Your task to perform on an android device: What's the weather like in Los Angeles? Image 0: 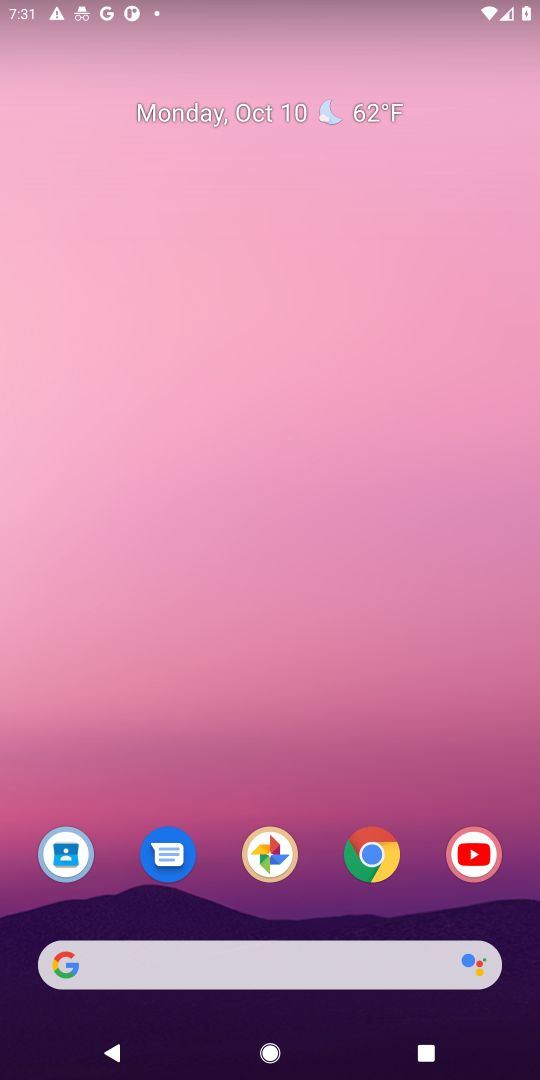
Step 0: click (381, 854)
Your task to perform on an android device: What's the weather like in Los Angeles? Image 1: 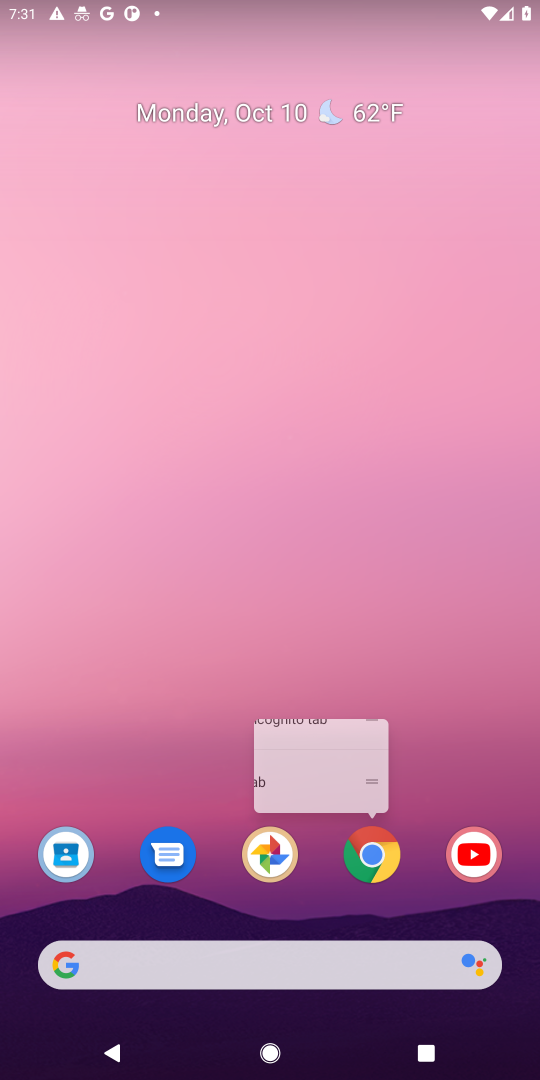
Step 1: click (381, 854)
Your task to perform on an android device: What's the weather like in Los Angeles? Image 2: 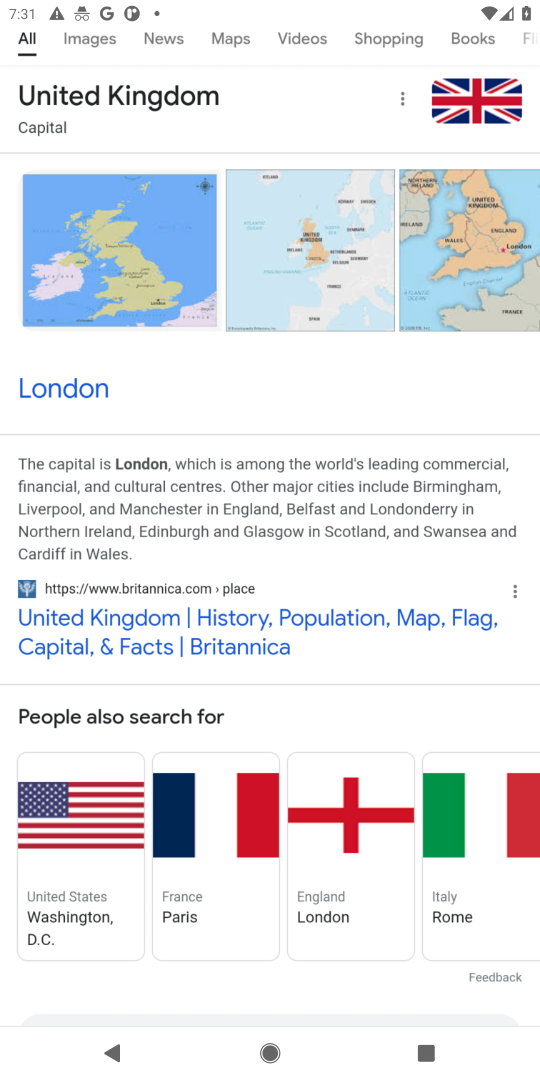
Step 2: click (381, 854)
Your task to perform on an android device: What's the weather like in Los Angeles? Image 3: 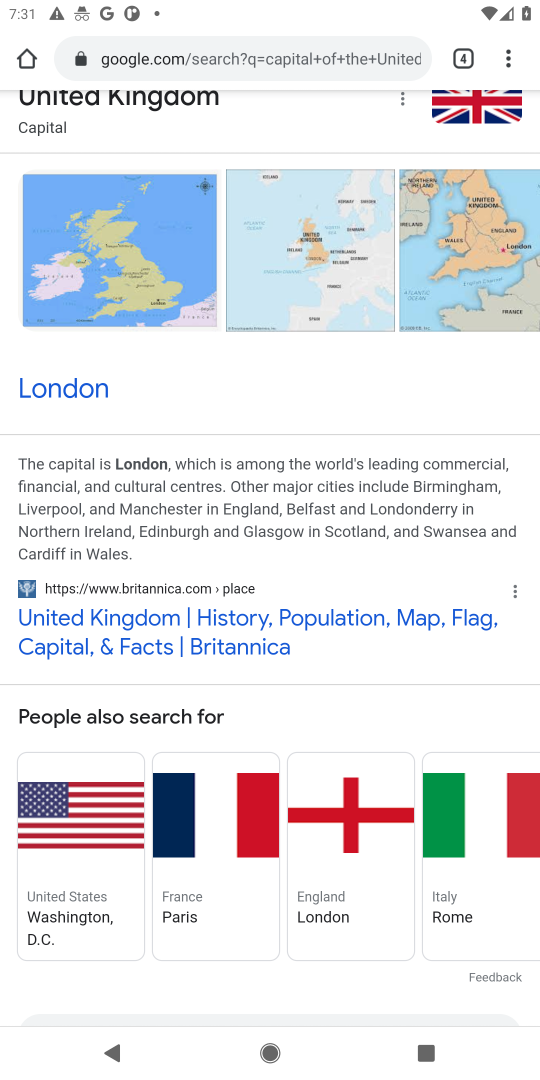
Step 3: click (309, 53)
Your task to perform on an android device: What's the weather like in Los Angeles? Image 4: 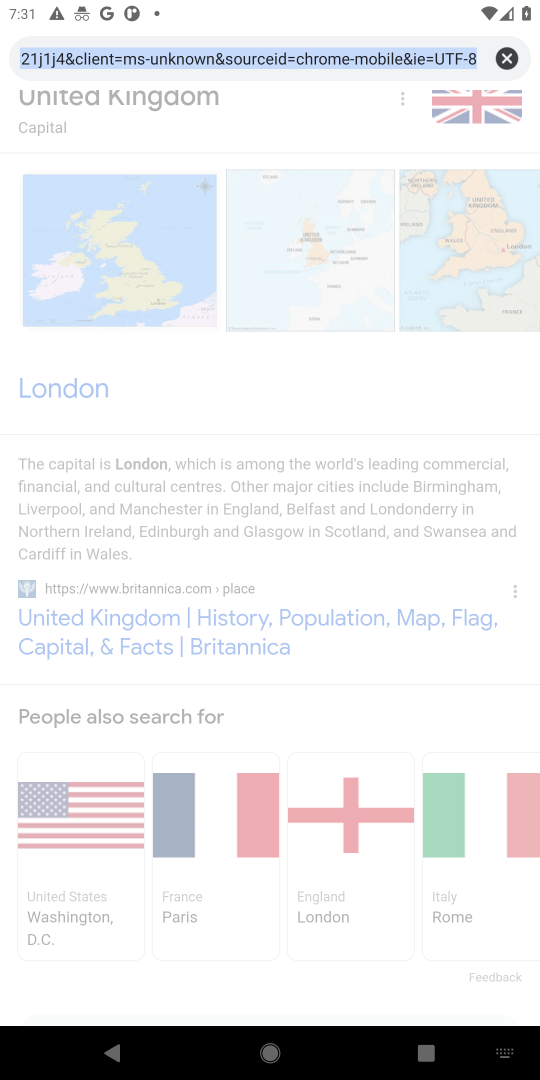
Step 4: click (502, 51)
Your task to perform on an android device: What's the weather like in Los Angeles? Image 5: 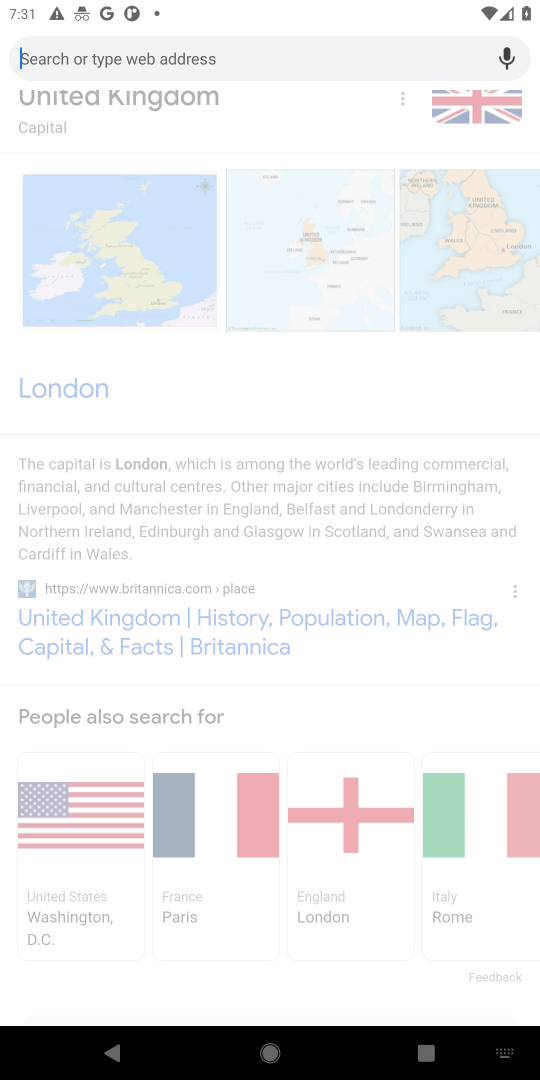
Step 5: type "What's the weather like in Los Angeles"
Your task to perform on an android device: What's the weather like in Los Angeles? Image 6: 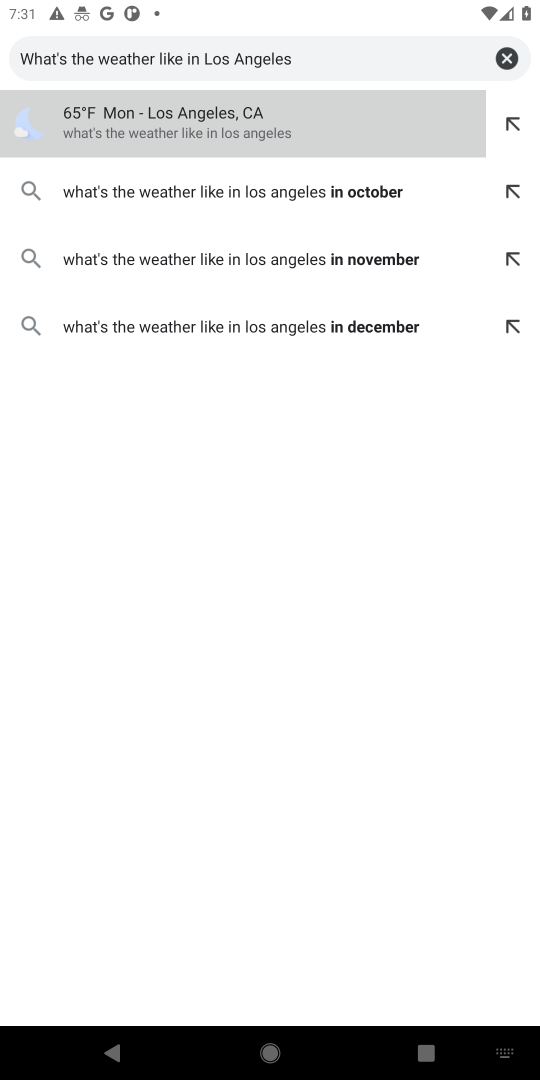
Step 6: click (165, 123)
Your task to perform on an android device: What's the weather like in Los Angeles? Image 7: 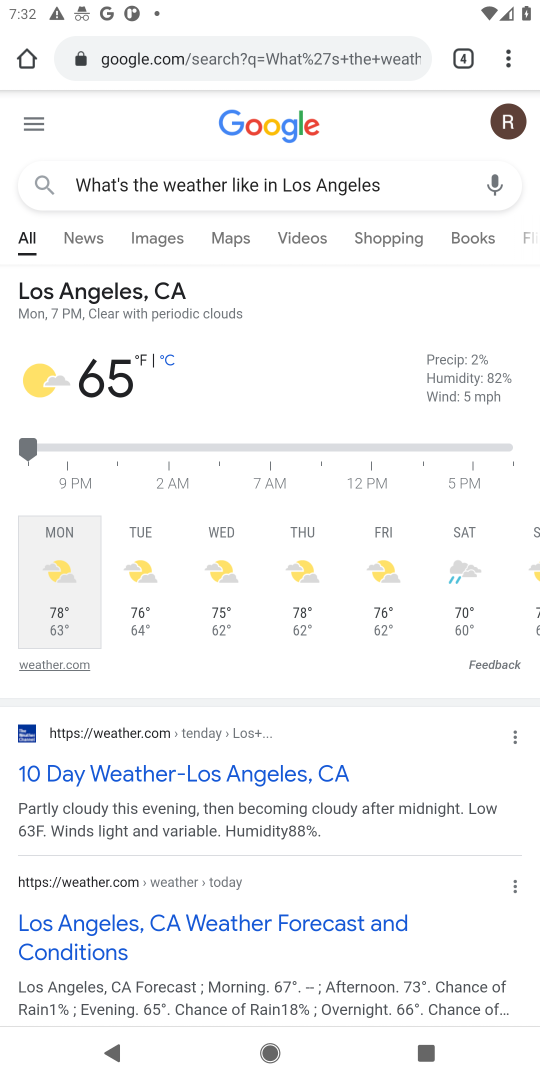
Step 7: task complete